Your task to perform on an android device: open app "Truecaller" (install if not already installed) Image 0: 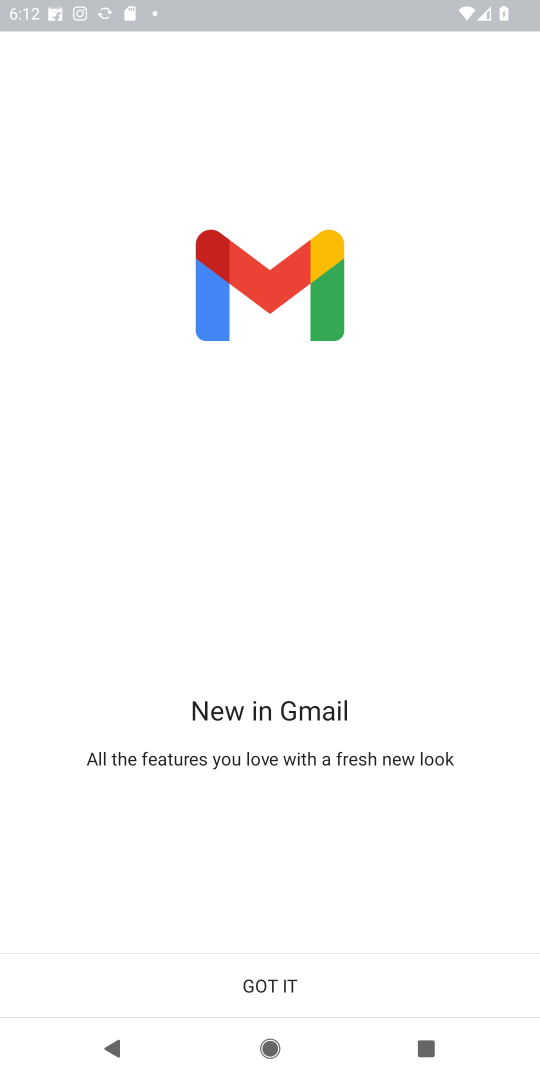
Step 0: press home button
Your task to perform on an android device: open app "Truecaller" (install if not already installed) Image 1: 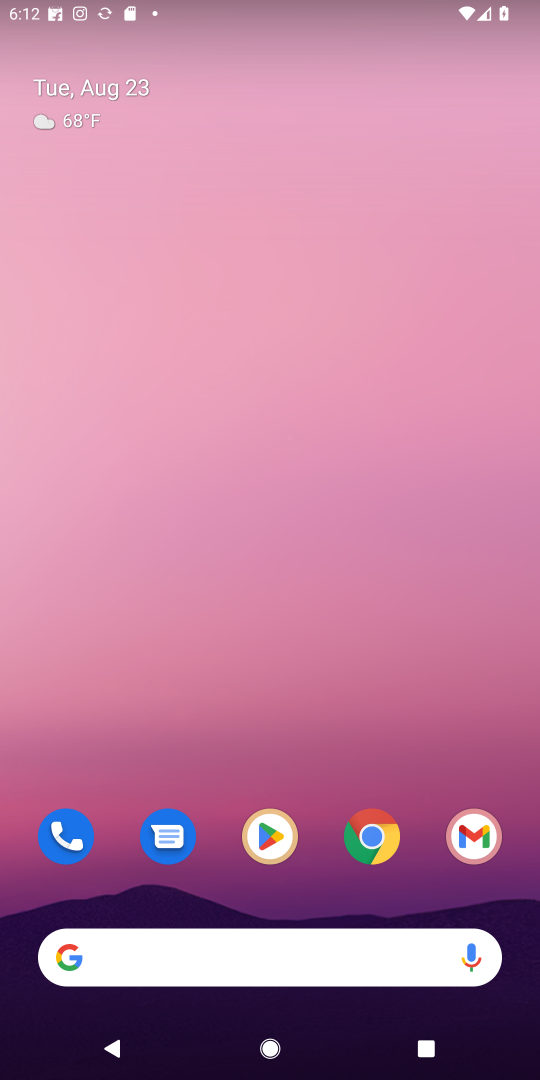
Step 1: click (272, 836)
Your task to perform on an android device: open app "Truecaller" (install if not already installed) Image 2: 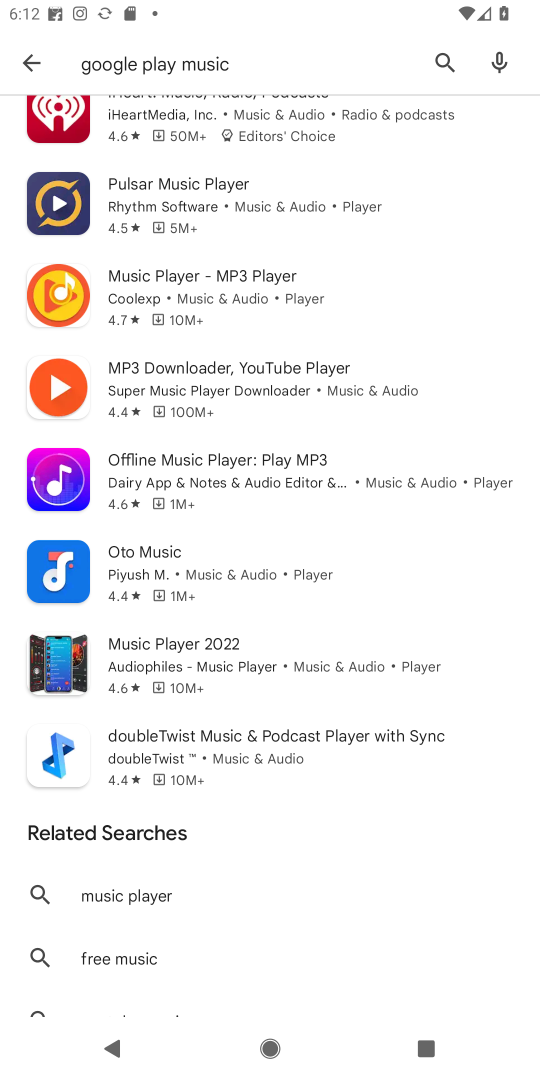
Step 2: click (444, 63)
Your task to perform on an android device: open app "Truecaller" (install if not already installed) Image 3: 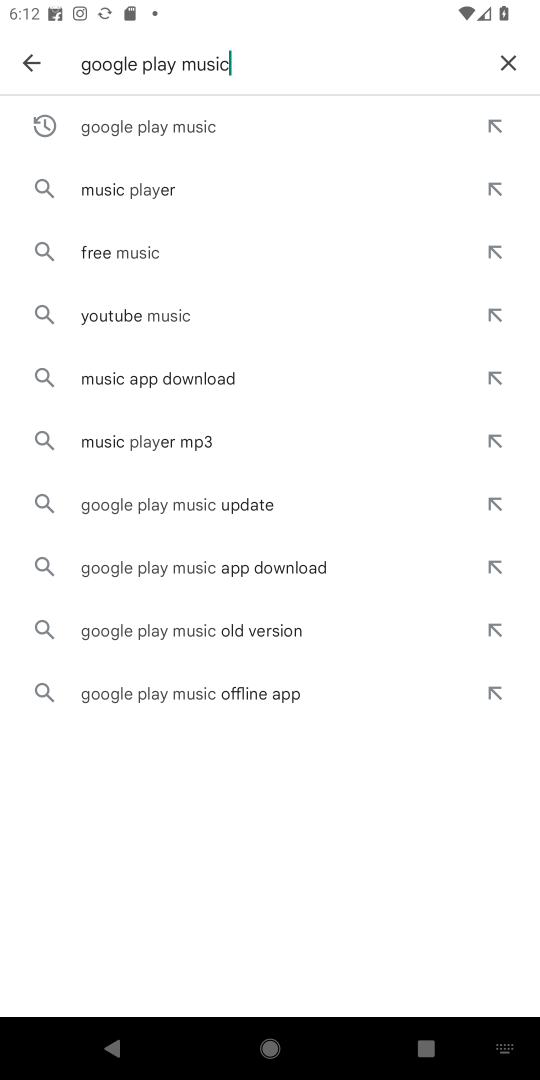
Step 3: click (505, 62)
Your task to perform on an android device: open app "Truecaller" (install if not already installed) Image 4: 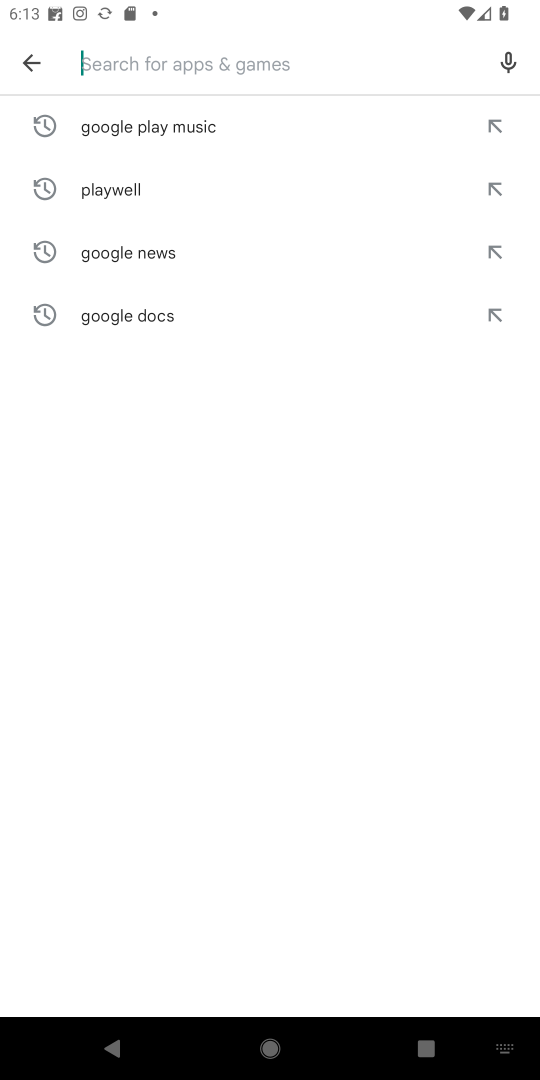
Step 4: type "Truecaller"
Your task to perform on an android device: open app "Truecaller" (install if not already installed) Image 5: 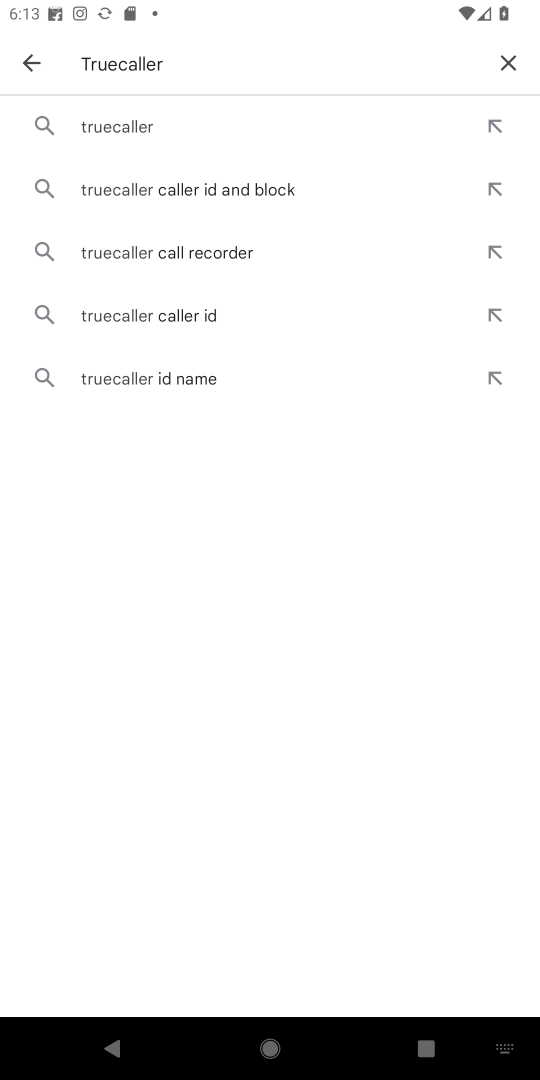
Step 5: click (144, 126)
Your task to perform on an android device: open app "Truecaller" (install if not already installed) Image 6: 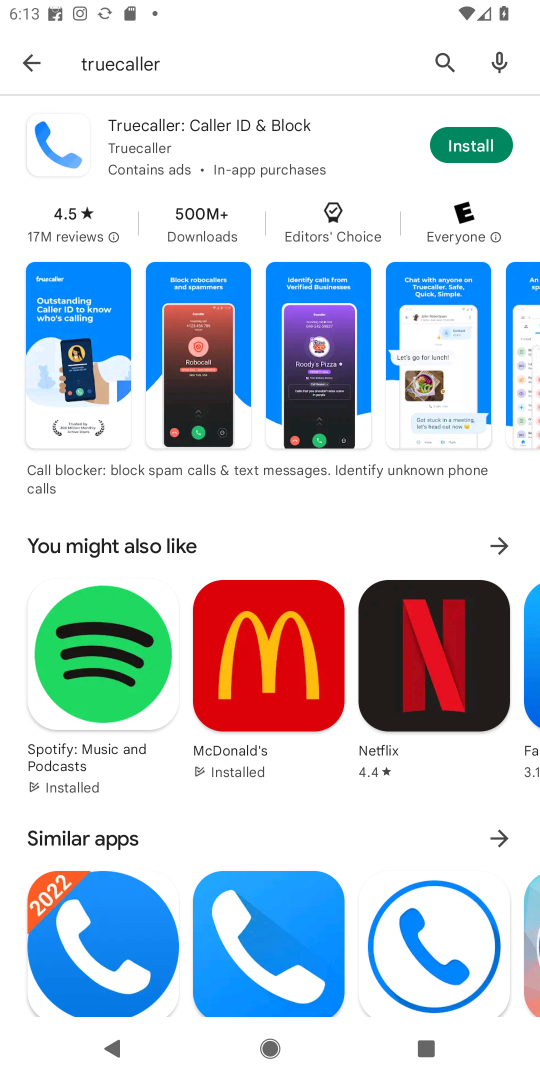
Step 6: click (471, 148)
Your task to perform on an android device: open app "Truecaller" (install if not already installed) Image 7: 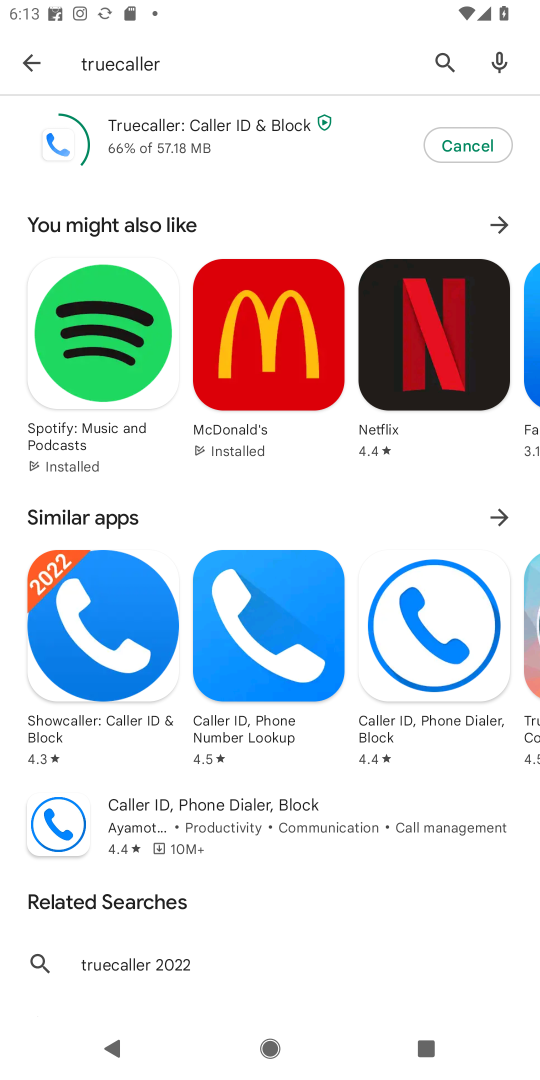
Step 7: click (148, 127)
Your task to perform on an android device: open app "Truecaller" (install if not already installed) Image 8: 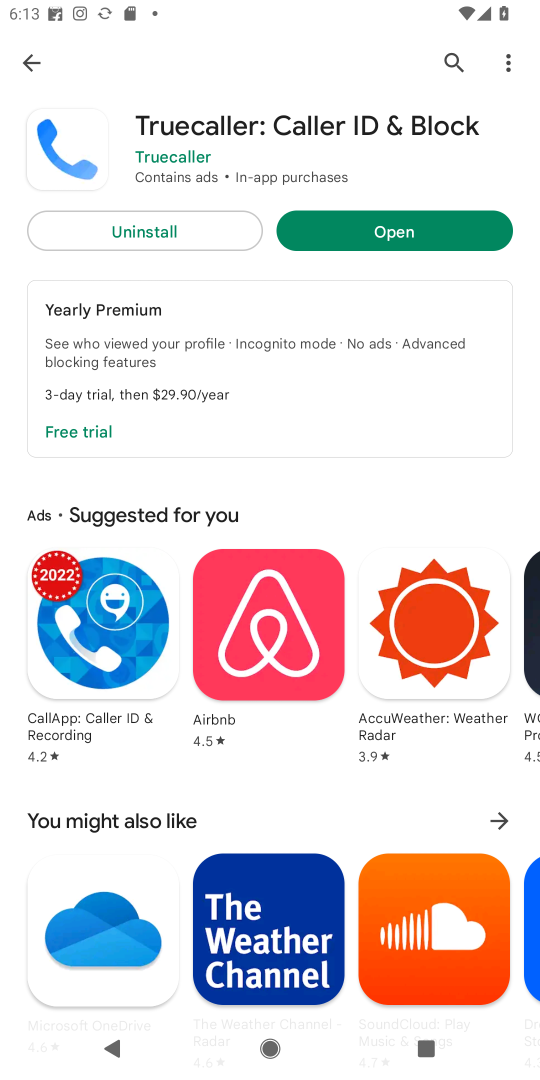
Step 8: click (403, 240)
Your task to perform on an android device: open app "Truecaller" (install if not already installed) Image 9: 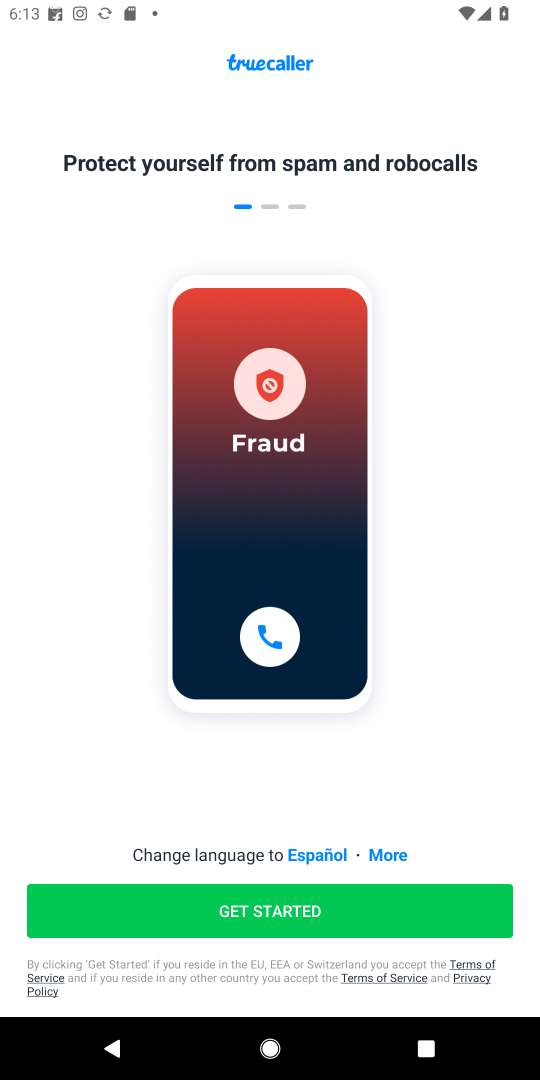
Step 9: task complete